Your task to perform on an android device: Show me some nice wallpapers for my laptop Image 0: 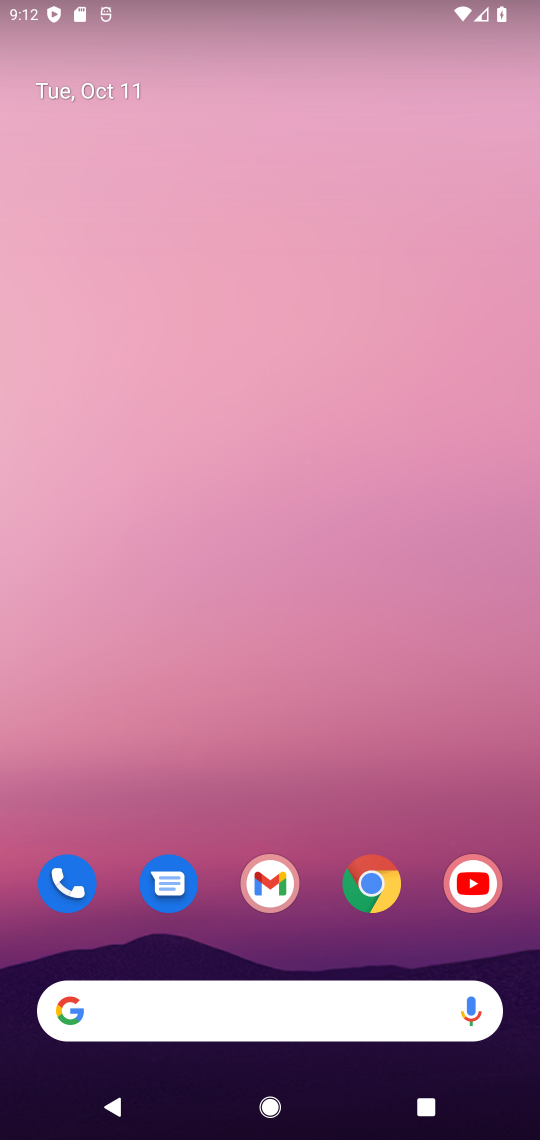
Step 0: click (60, 1011)
Your task to perform on an android device: Show me some nice wallpapers for my laptop Image 1: 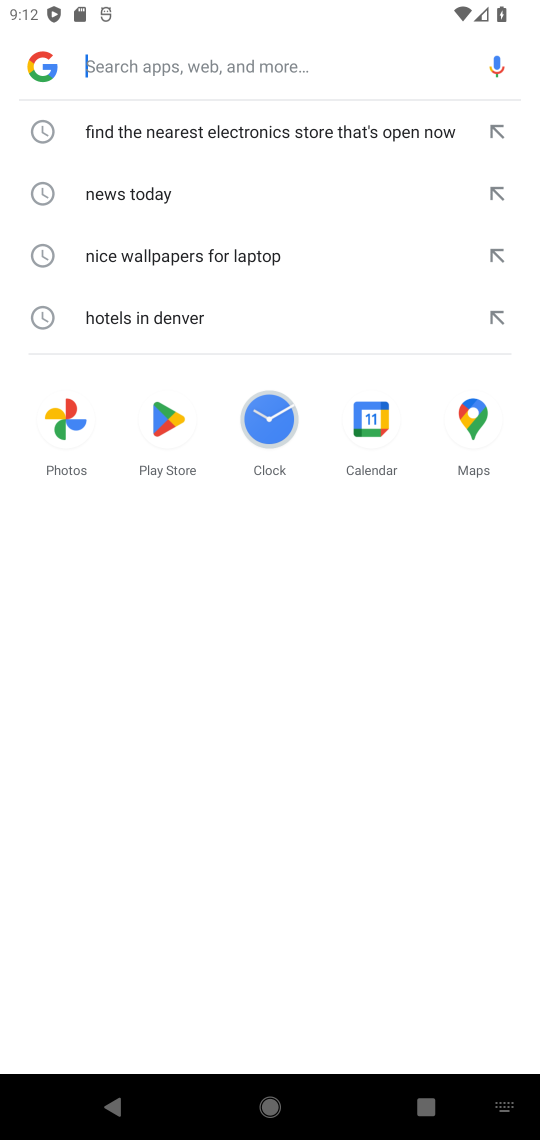
Step 1: type "Show me some nice wallpapers for my laptop"
Your task to perform on an android device: Show me some nice wallpapers for my laptop Image 2: 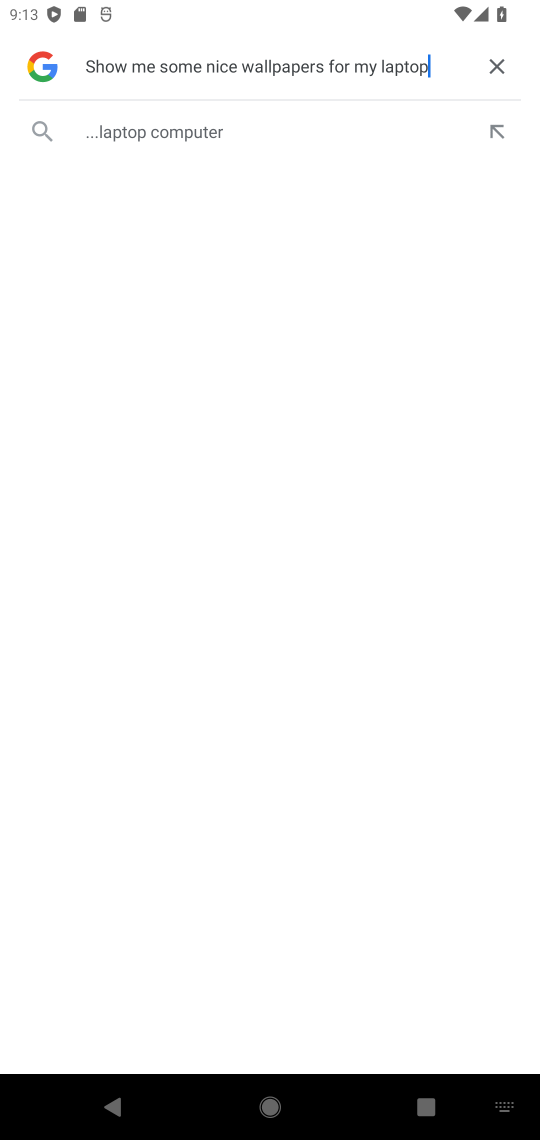
Step 2: click (213, 141)
Your task to perform on an android device: Show me some nice wallpapers for my laptop Image 3: 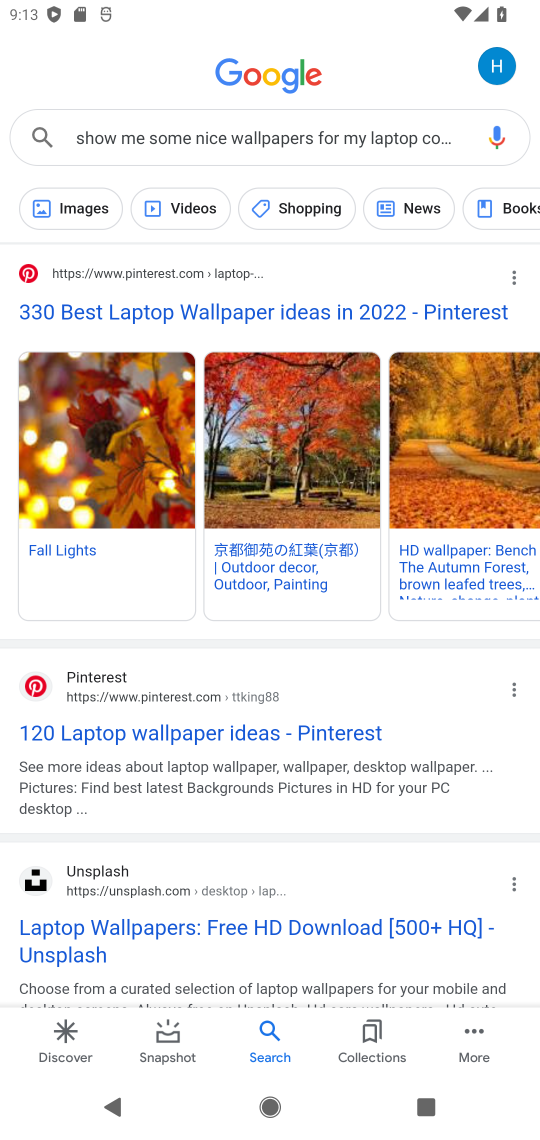
Step 3: task complete